Your task to perform on an android device: Go to Maps Image 0: 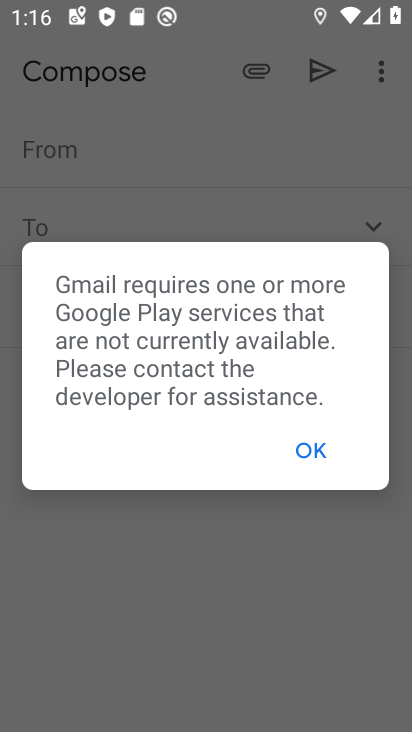
Step 0: press home button
Your task to perform on an android device: Go to Maps Image 1: 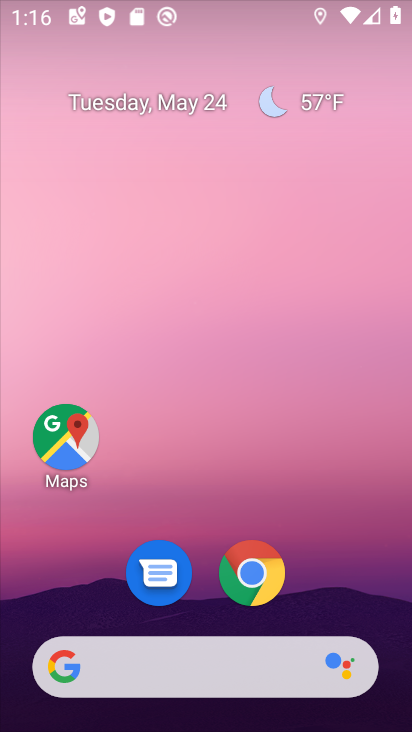
Step 1: drag from (389, 590) to (350, 117)
Your task to perform on an android device: Go to Maps Image 2: 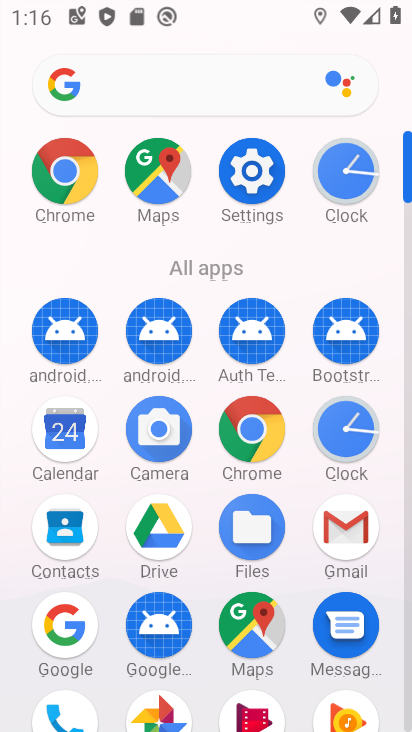
Step 2: click (250, 632)
Your task to perform on an android device: Go to Maps Image 3: 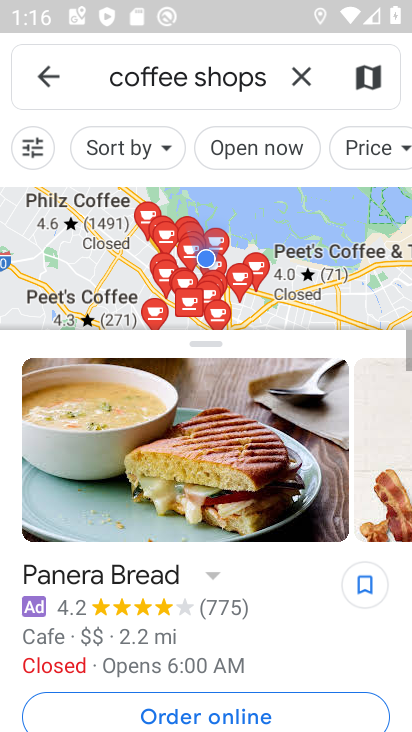
Step 3: click (293, 84)
Your task to perform on an android device: Go to Maps Image 4: 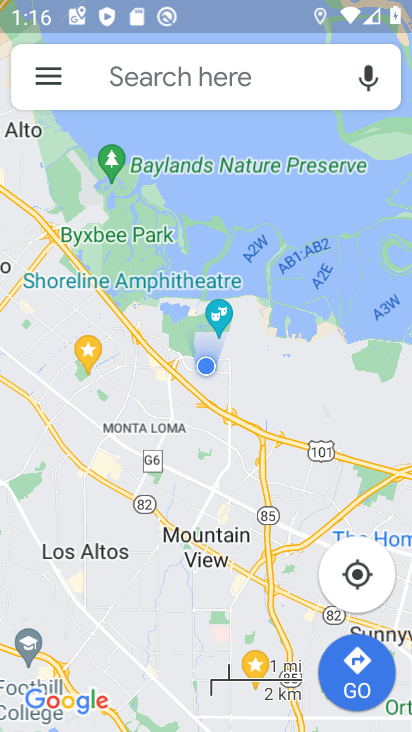
Step 4: click (185, 83)
Your task to perform on an android device: Go to Maps Image 5: 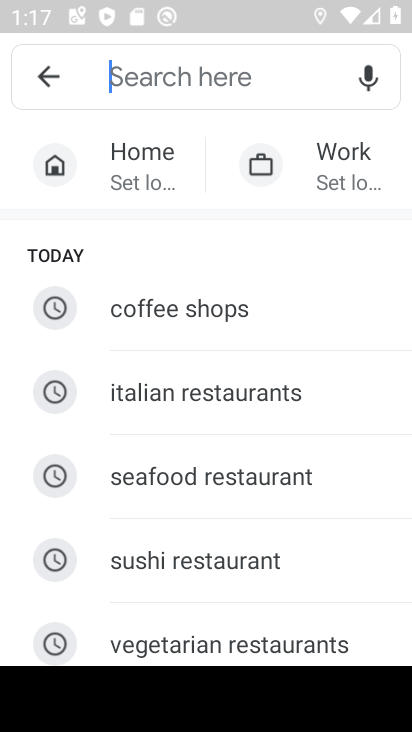
Step 5: task complete